Your task to perform on an android device: Turn off the flashlight Image 0: 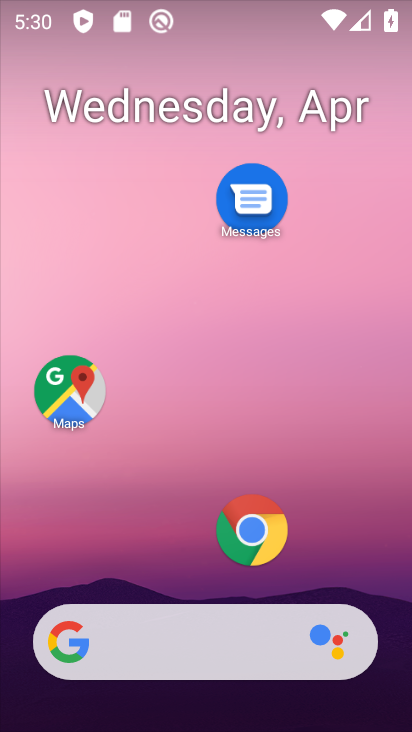
Step 0: drag from (197, 562) to (247, 52)
Your task to perform on an android device: Turn off the flashlight Image 1: 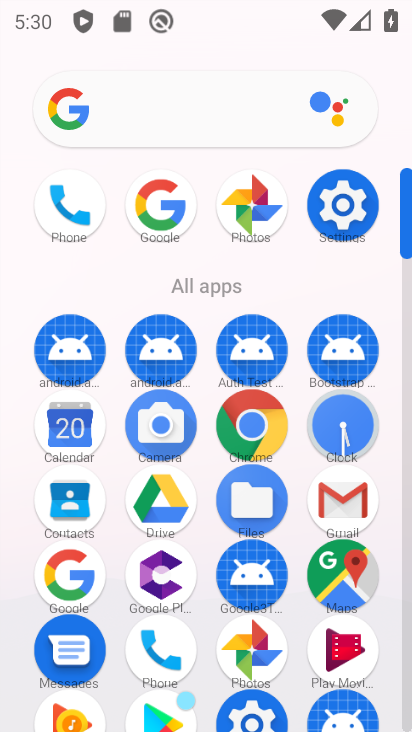
Step 1: click (343, 208)
Your task to perform on an android device: Turn off the flashlight Image 2: 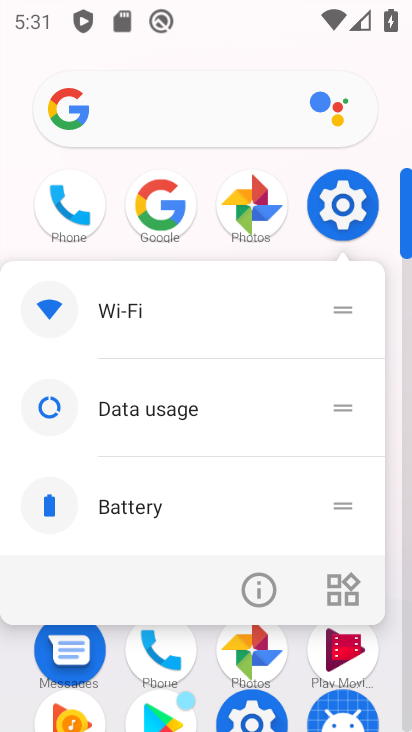
Step 2: click (349, 203)
Your task to perform on an android device: Turn off the flashlight Image 3: 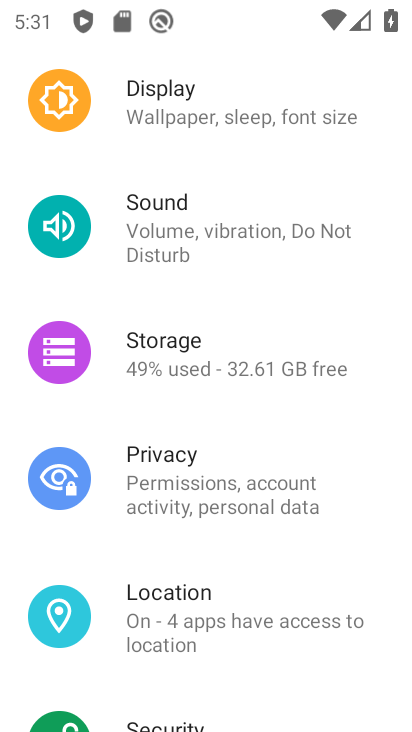
Step 3: click (316, 117)
Your task to perform on an android device: Turn off the flashlight Image 4: 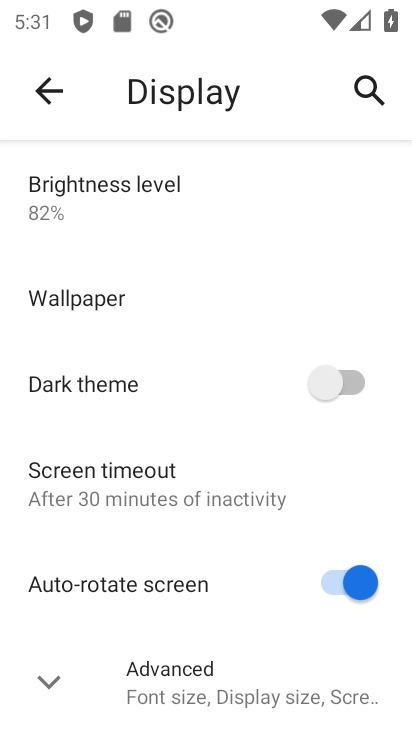
Step 4: drag from (132, 630) to (179, 497)
Your task to perform on an android device: Turn off the flashlight Image 5: 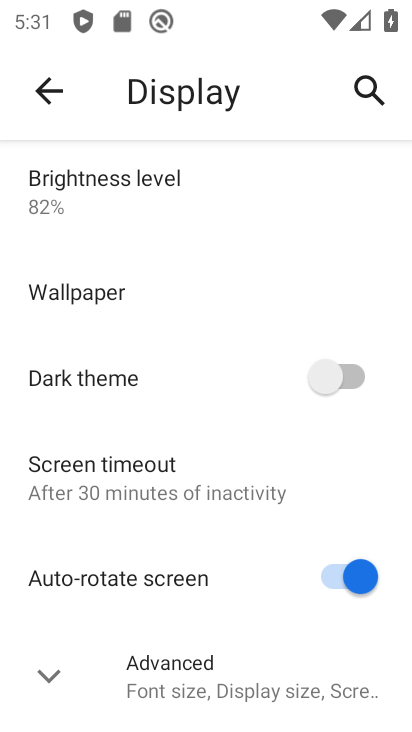
Step 5: click (158, 691)
Your task to perform on an android device: Turn off the flashlight Image 6: 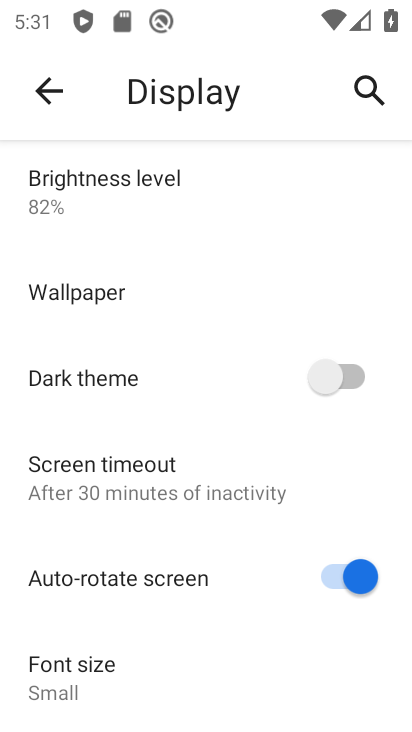
Step 6: task complete